Your task to perform on an android device: open chrome privacy settings Image 0: 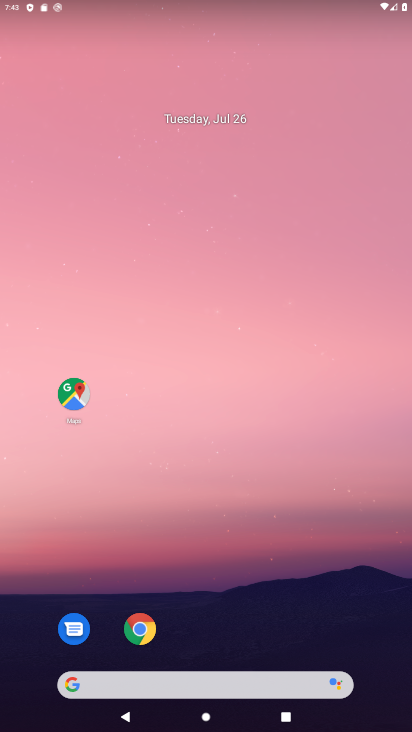
Step 0: press home button
Your task to perform on an android device: open chrome privacy settings Image 1: 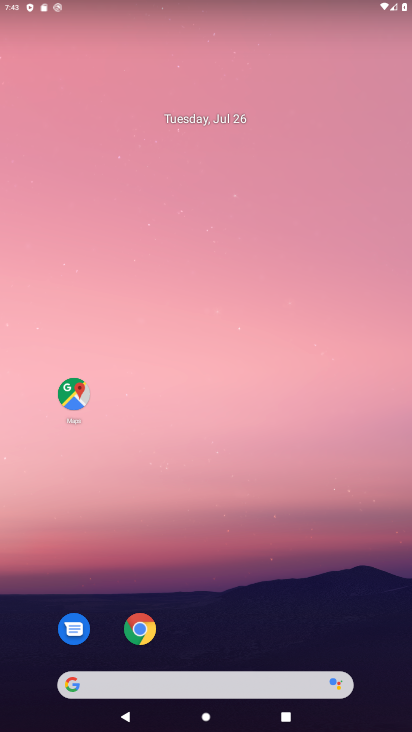
Step 1: click (136, 626)
Your task to perform on an android device: open chrome privacy settings Image 2: 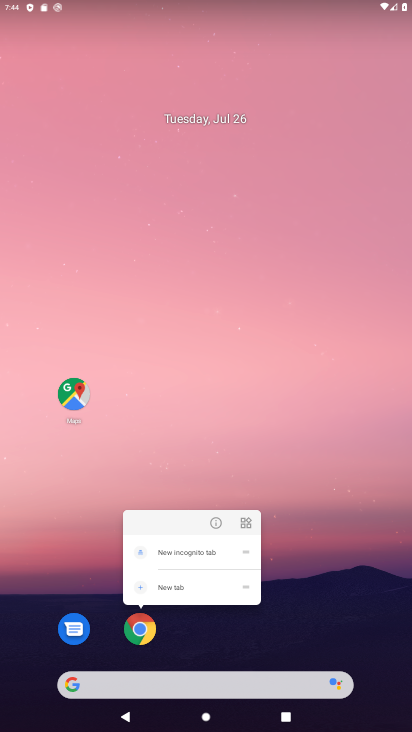
Step 2: click (137, 632)
Your task to perform on an android device: open chrome privacy settings Image 3: 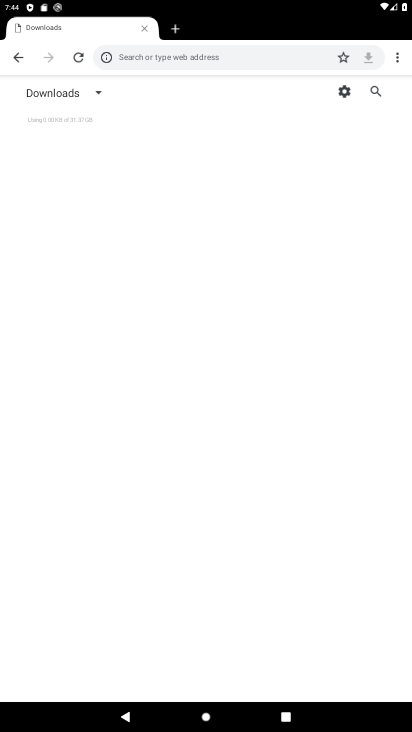
Step 3: click (398, 50)
Your task to perform on an android device: open chrome privacy settings Image 4: 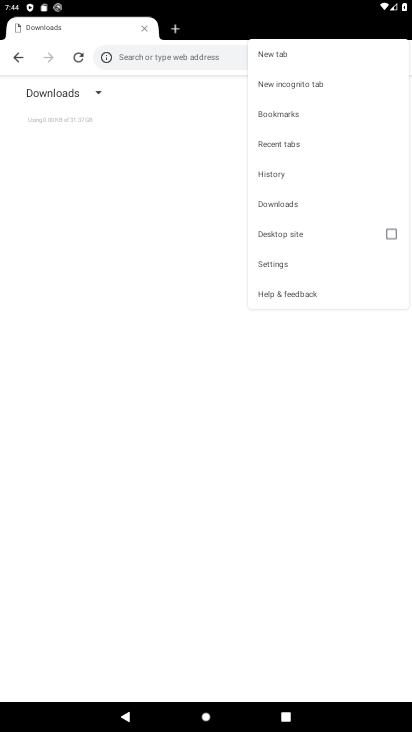
Step 4: click (284, 264)
Your task to perform on an android device: open chrome privacy settings Image 5: 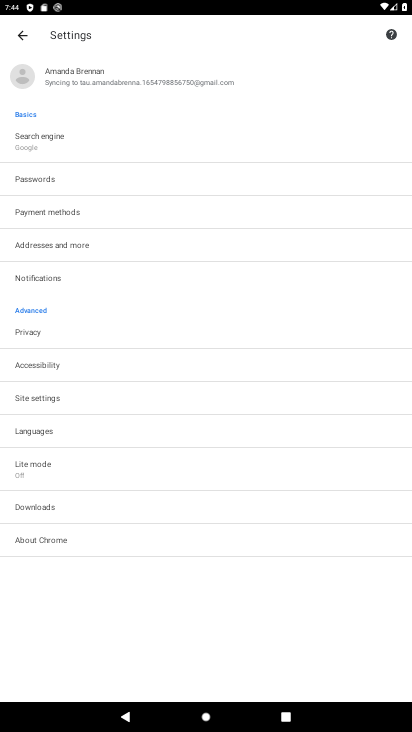
Step 5: click (50, 329)
Your task to perform on an android device: open chrome privacy settings Image 6: 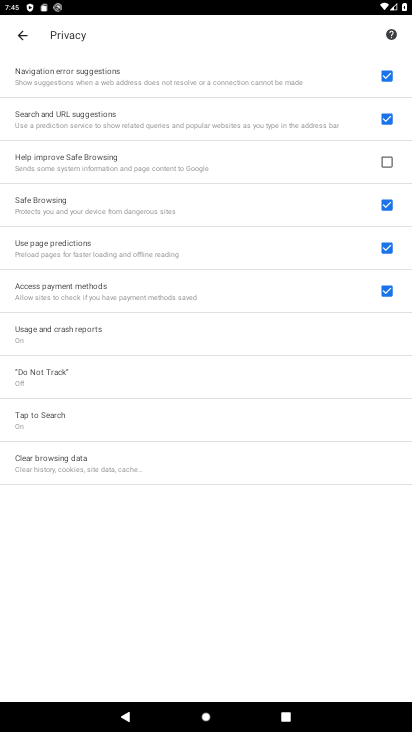
Step 6: task complete